Your task to perform on an android device: add a contact in the contacts app Image 0: 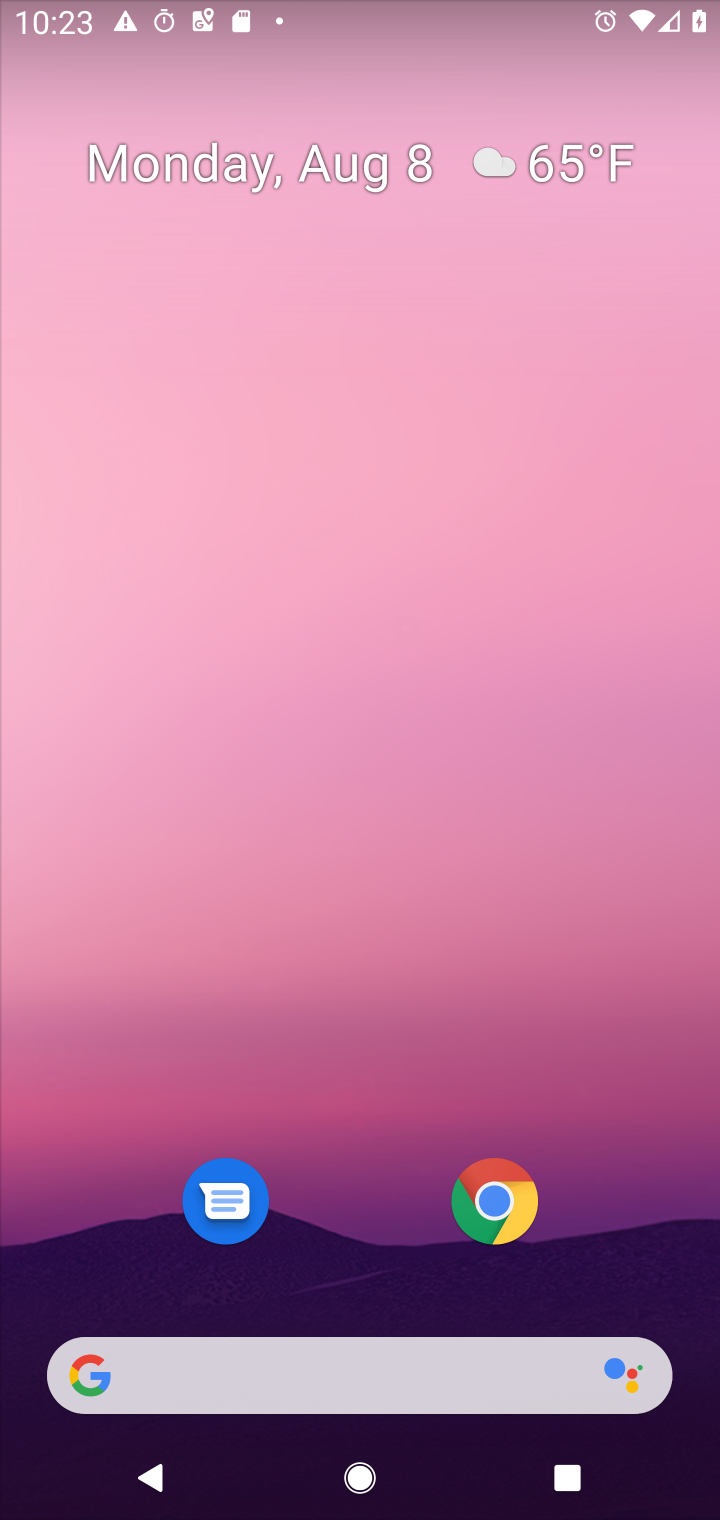
Step 0: press home button
Your task to perform on an android device: add a contact in the contacts app Image 1: 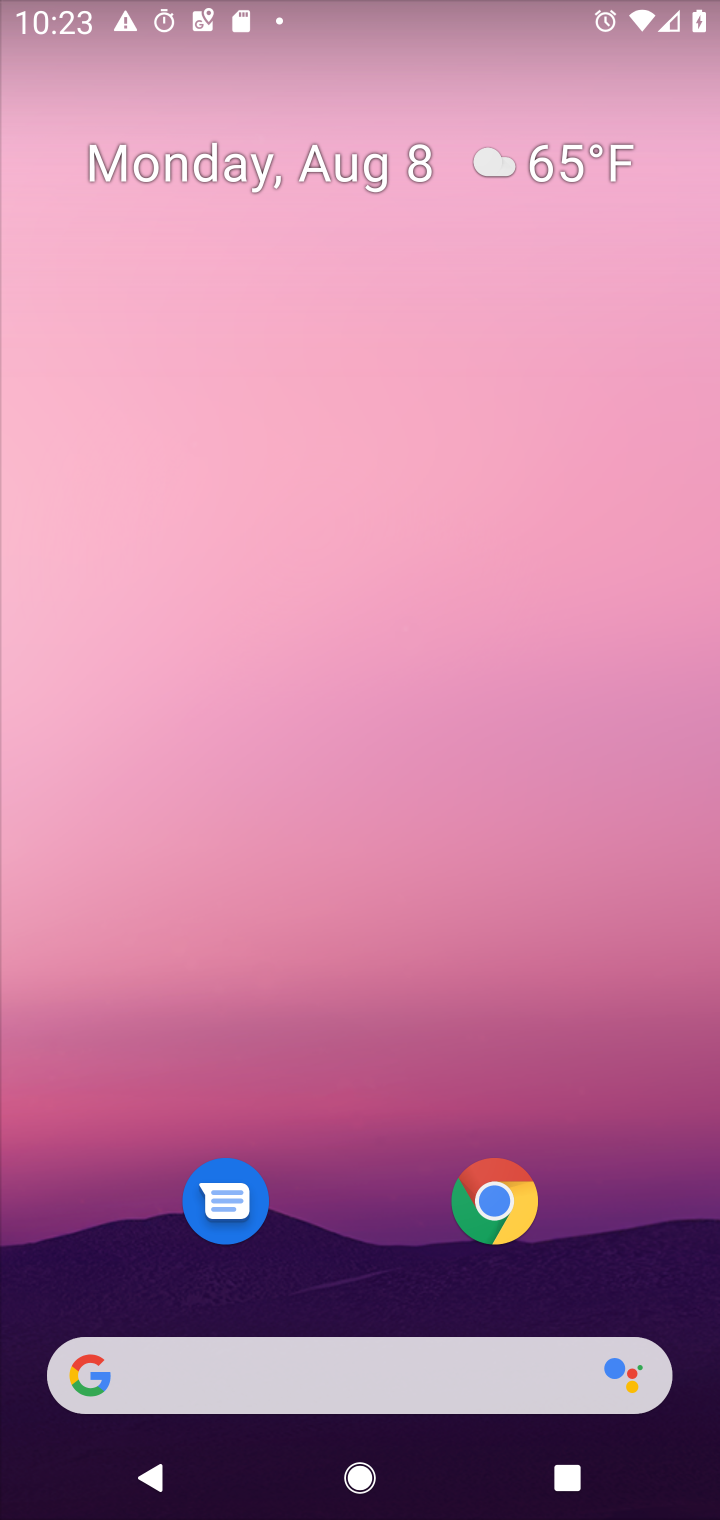
Step 1: drag from (608, 1220) to (640, 318)
Your task to perform on an android device: add a contact in the contacts app Image 2: 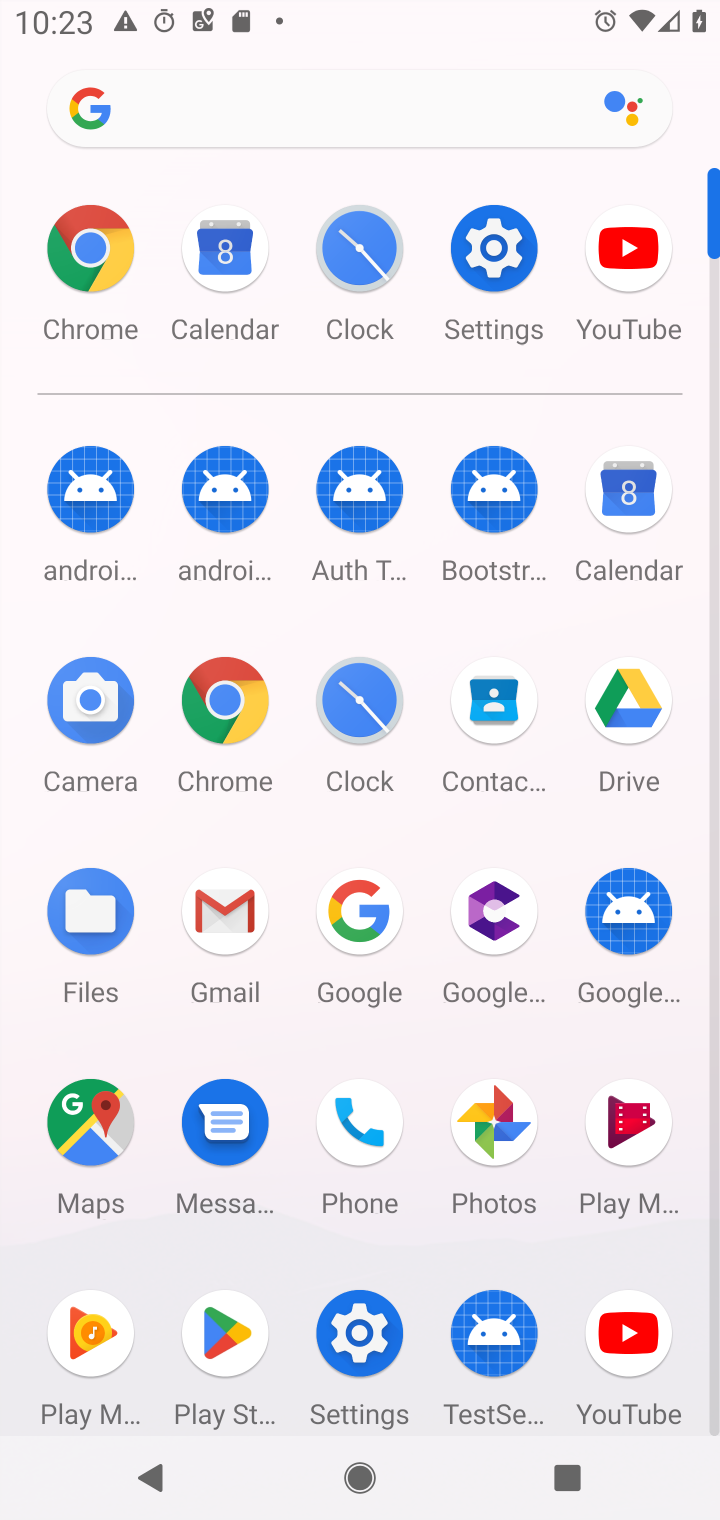
Step 2: click (509, 705)
Your task to perform on an android device: add a contact in the contacts app Image 3: 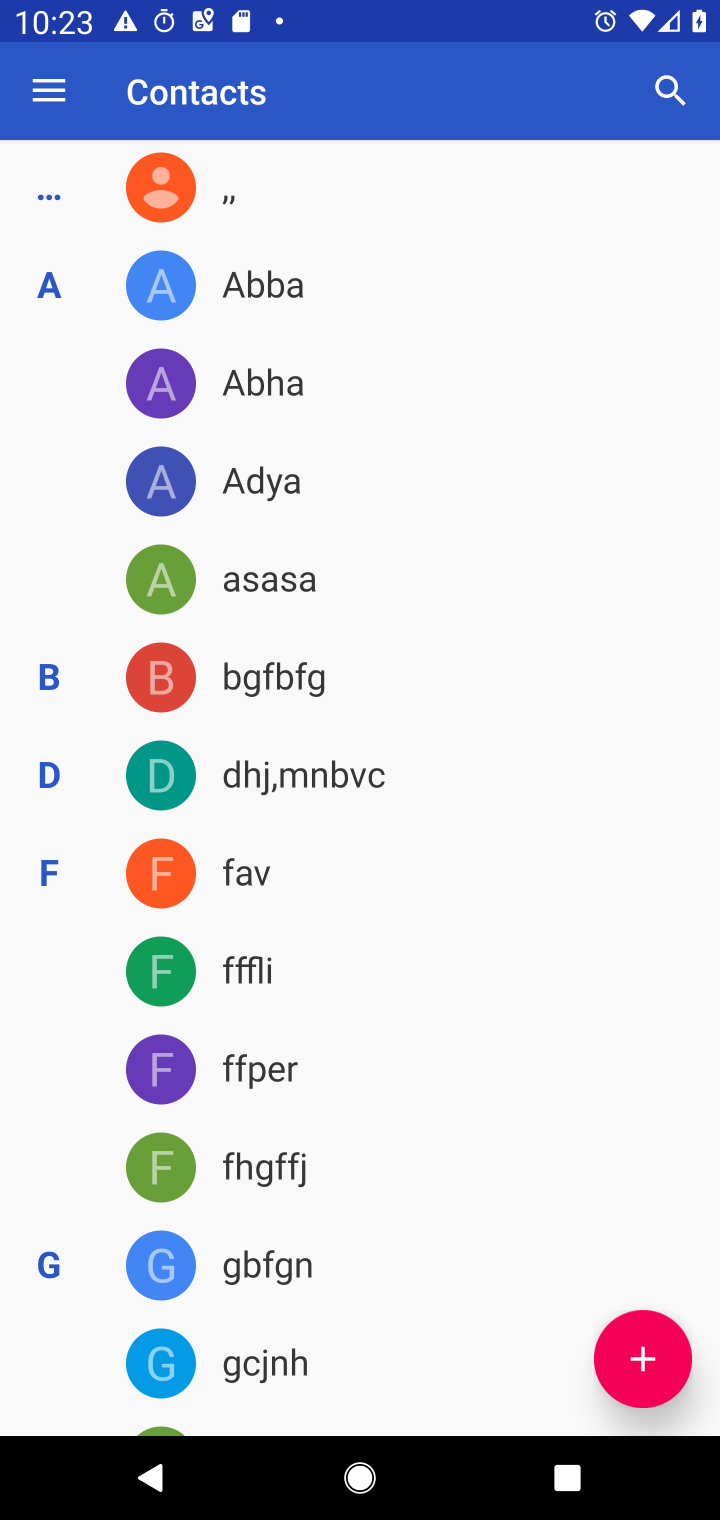
Step 3: click (632, 1351)
Your task to perform on an android device: add a contact in the contacts app Image 4: 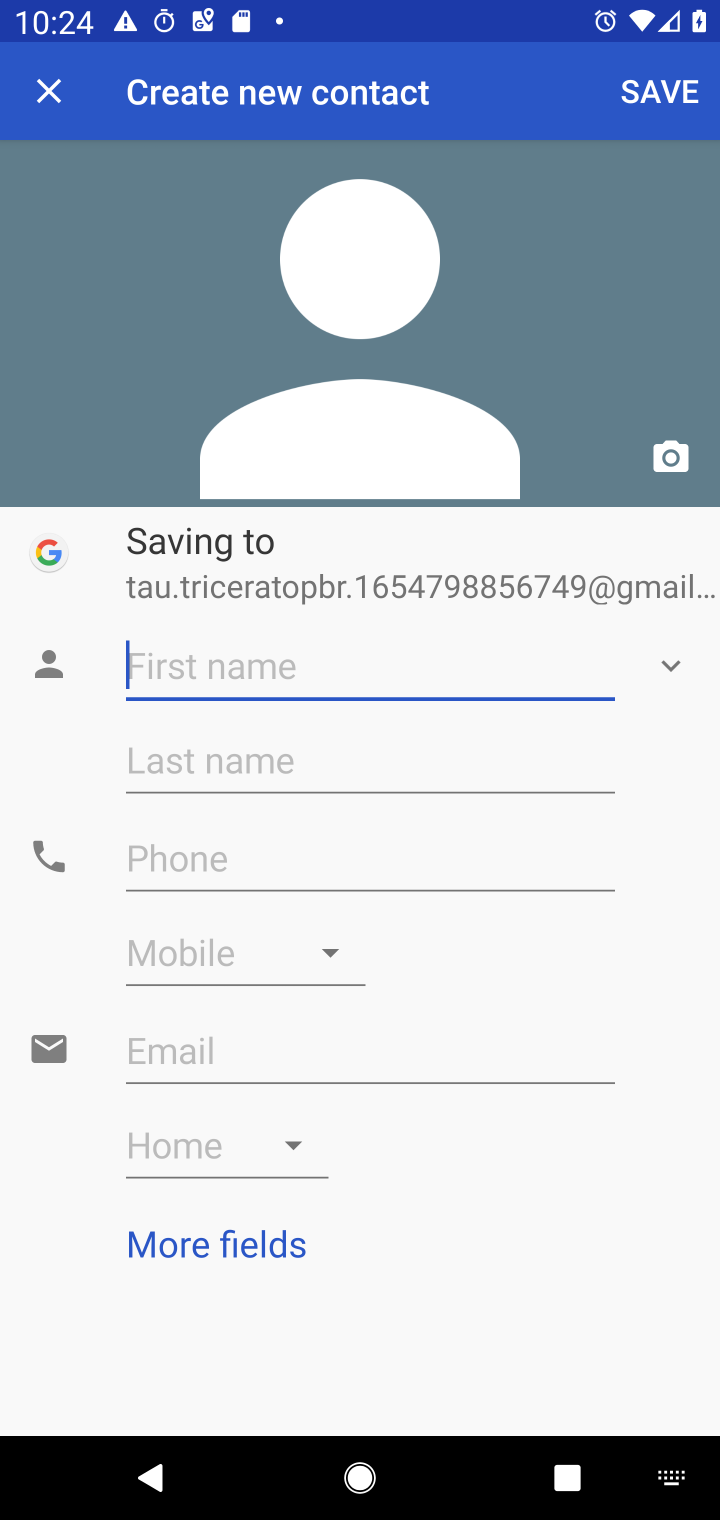
Step 4: type "fav"
Your task to perform on an android device: add a contact in the contacts app Image 5: 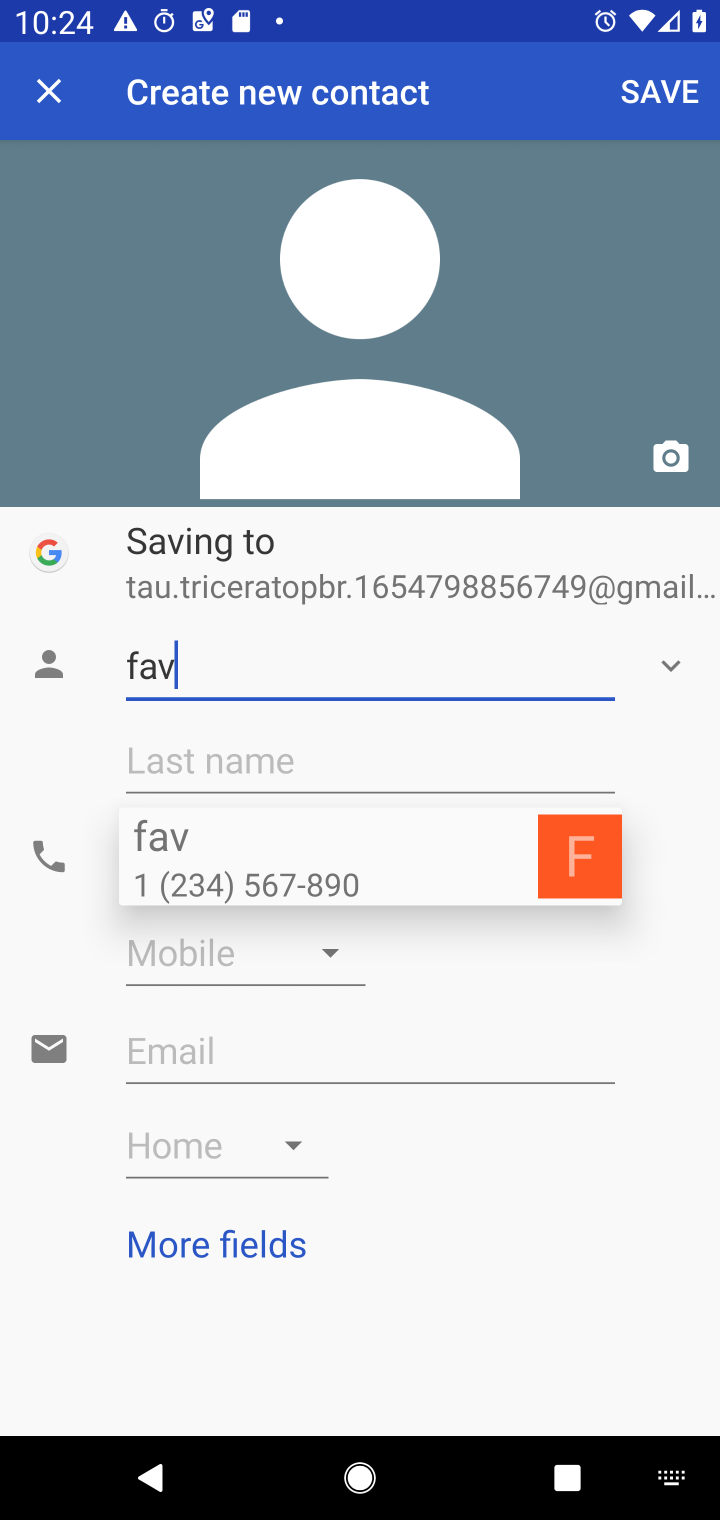
Step 5: click (678, 795)
Your task to perform on an android device: add a contact in the contacts app Image 6: 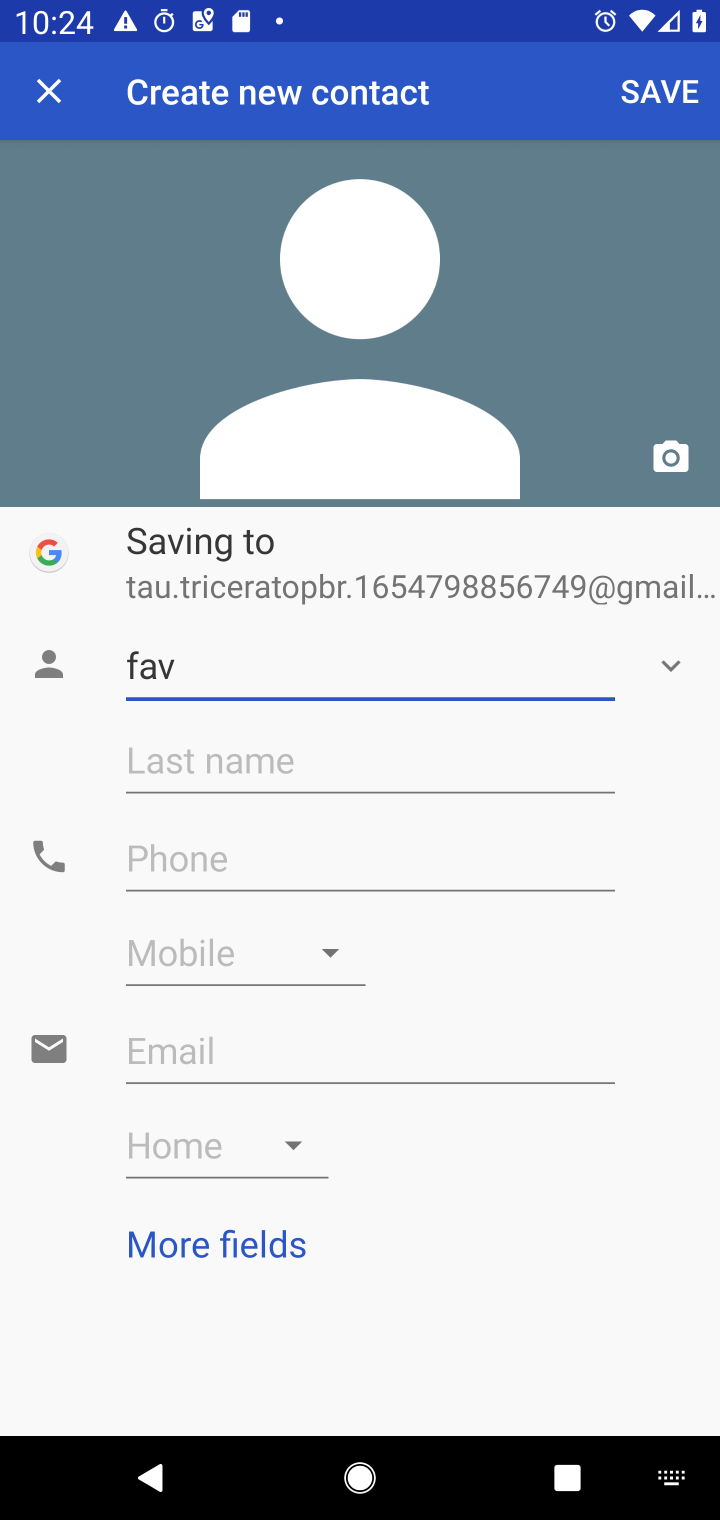
Step 6: click (500, 855)
Your task to perform on an android device: add a contact in the contacts app Image 7: 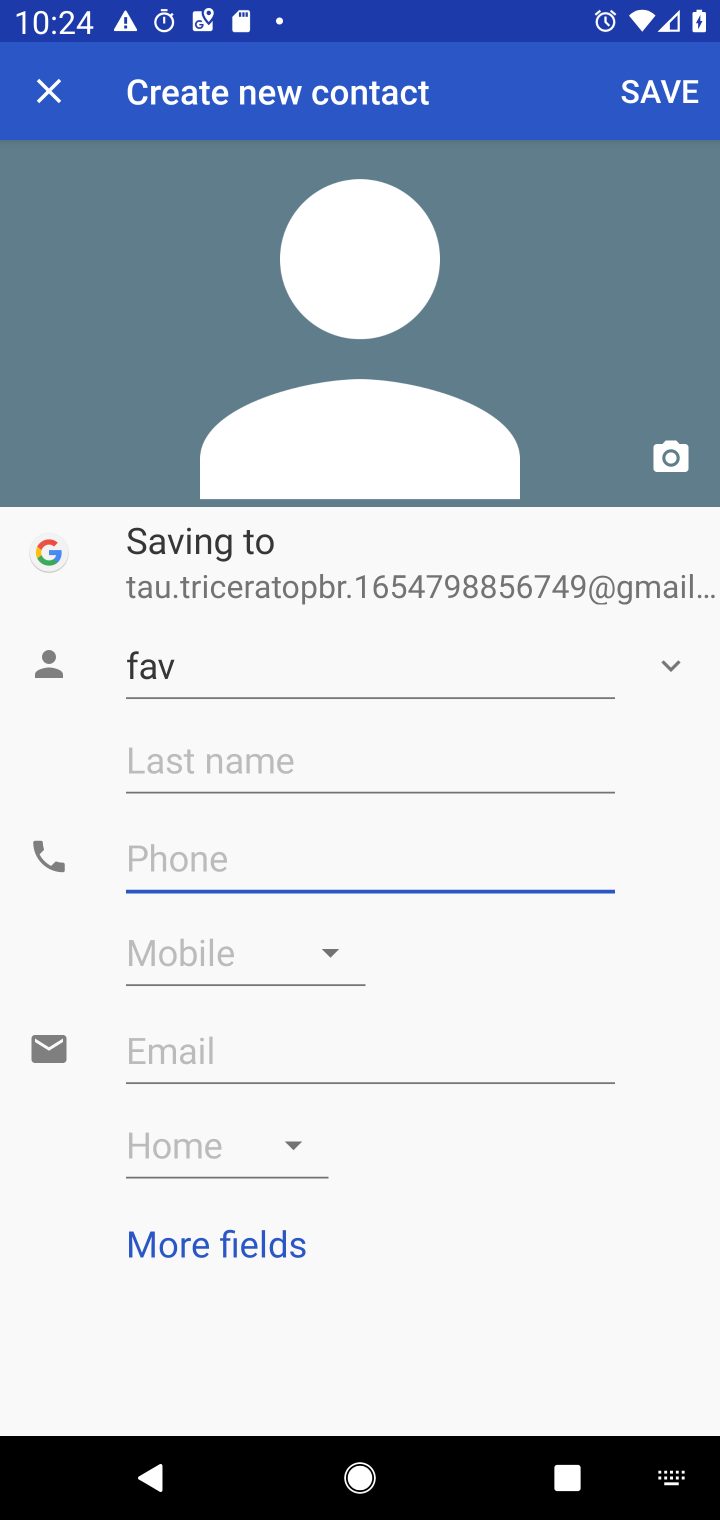
Step 7: type "12344566789"
Your task to perform on an android device: add a contact in the contacts app Image 8: 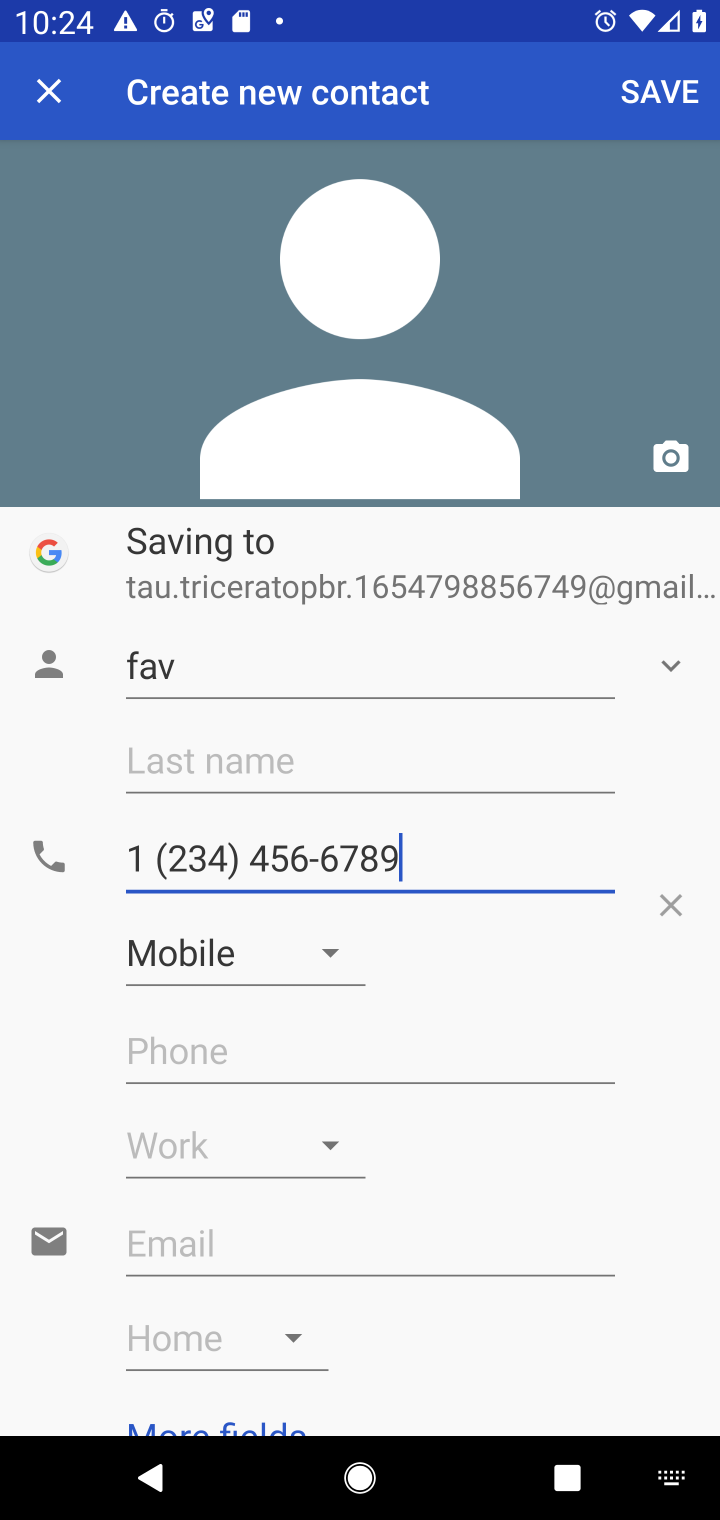
Step 8: click (649, 91)
Your task to perform on an android device: add a contact in the contacts app Image 9: 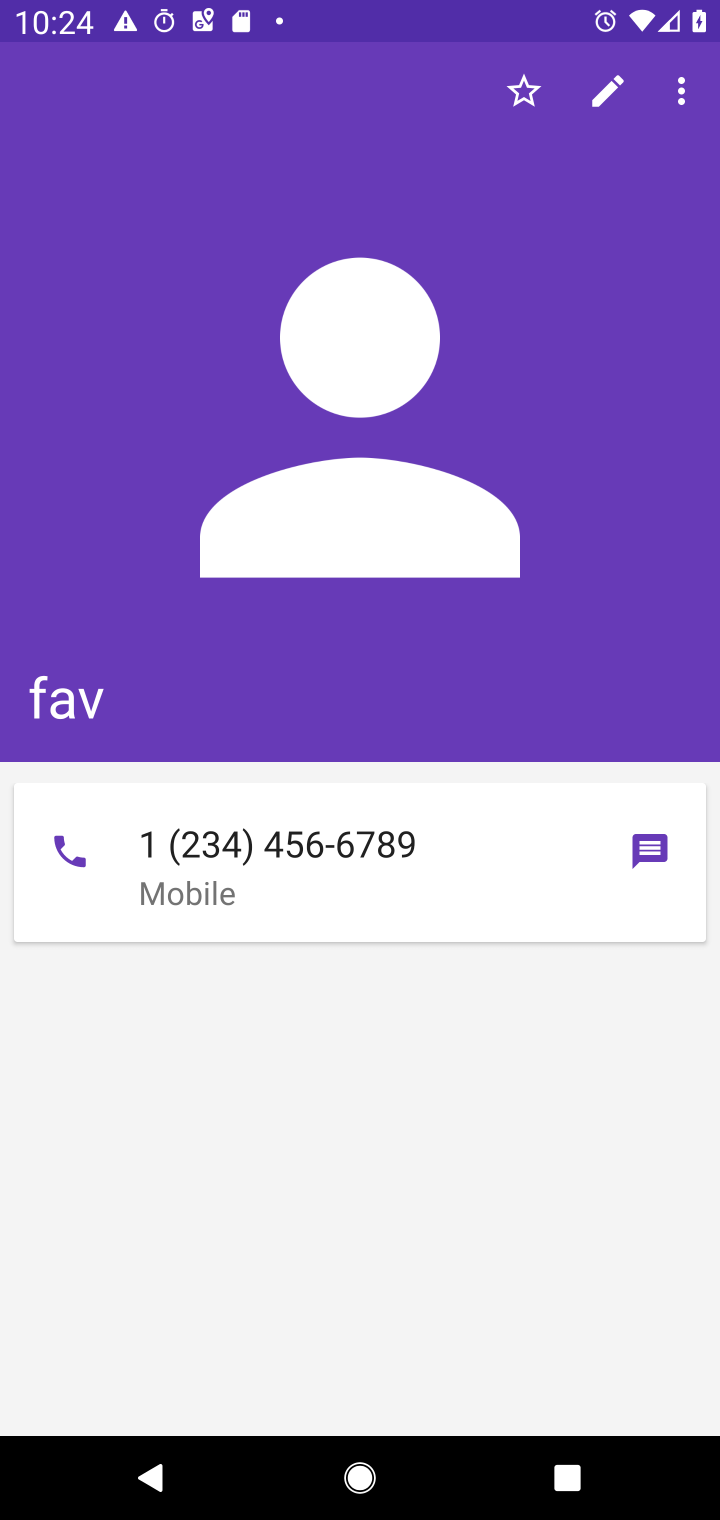
Step 9: task complete